Your task to perform on an android device: Do I have any events this weekend? Image 0: 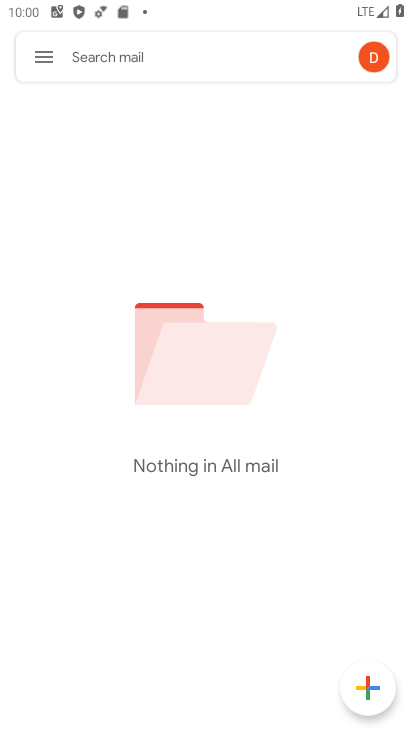
Step 0: press home button
Your task to perform on an android device: Do I have any events this weekend? Image 1: 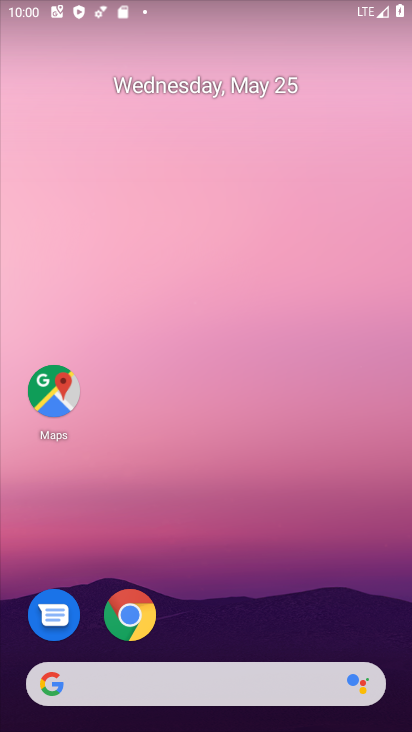
Step 1: drag from (230, 537) to (255, 42)
Your task to perform on an android device: Do I have any events this weekend? Image 2: 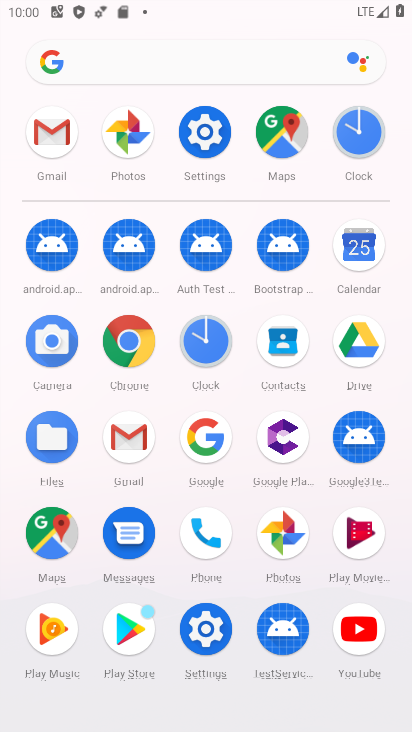
Step 2: click (352, 247)
Your task to perform on an android device: Do I have any events this weekend? Image 3: 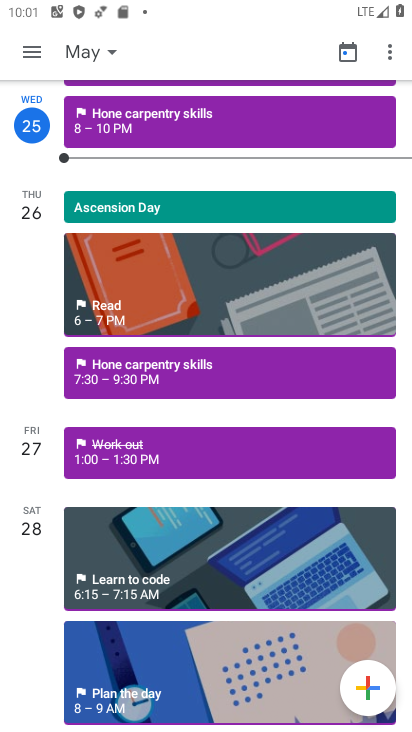
Step 3: task complete